Your task to perform on an android device: Is it going to rain this weekend? Image 0: 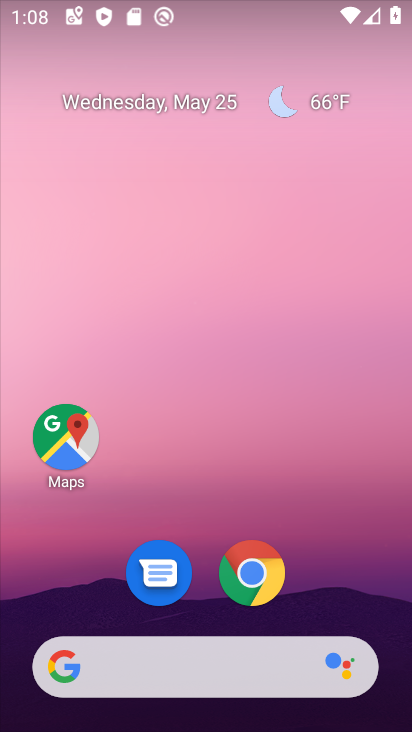
Step 0: click (338, 103)
Your task to perform on an android device: Is it going to rain this weekend? Image 1: 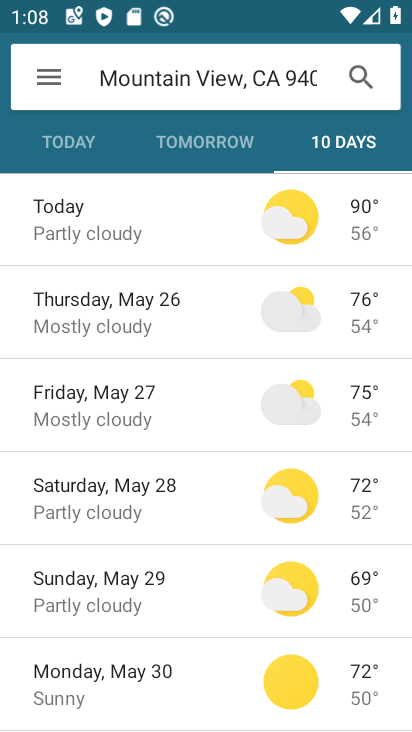
Step 1: task complete